Your task to perform on an android device: Go to calendar. Show me events next week Image 0: 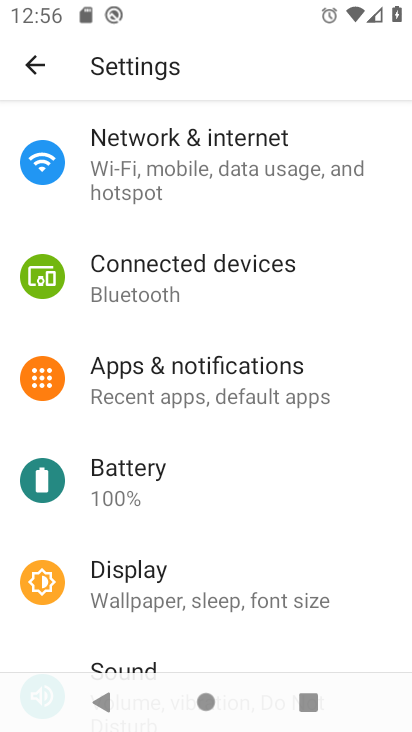
Step 0: press home button
Your task to perform on an android device: Go to calendar. Show me events next week Image 1: 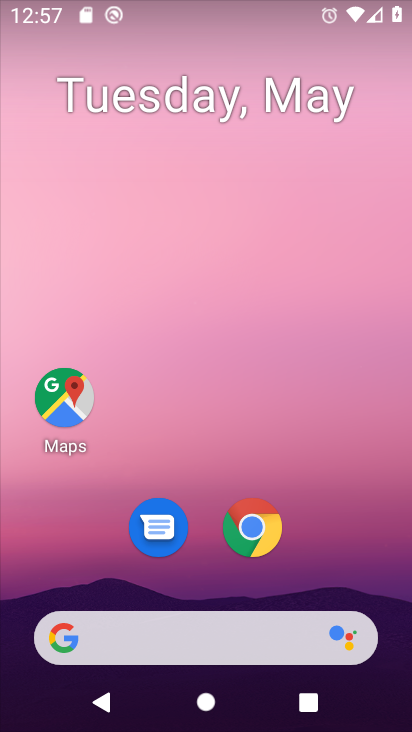
Step 1: drag from (257, 680) to (268, 245)
Your task to perform on an android device: Go to calendar. Show me events next week Image 2: 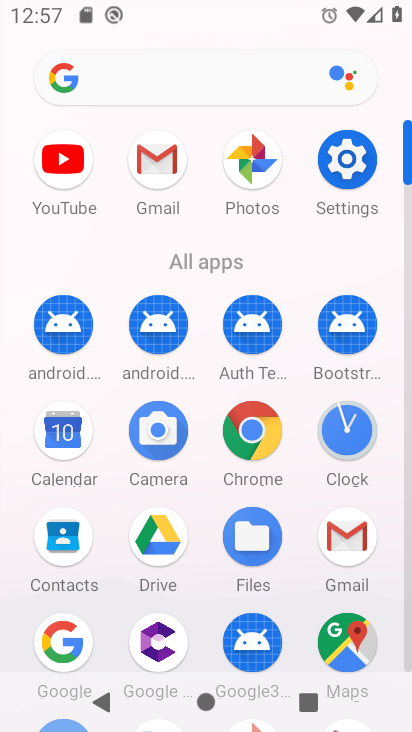
Step 2: click (56, 437)
Your task to perform on an android device: Go to calendar. Show me events next week Image 3: 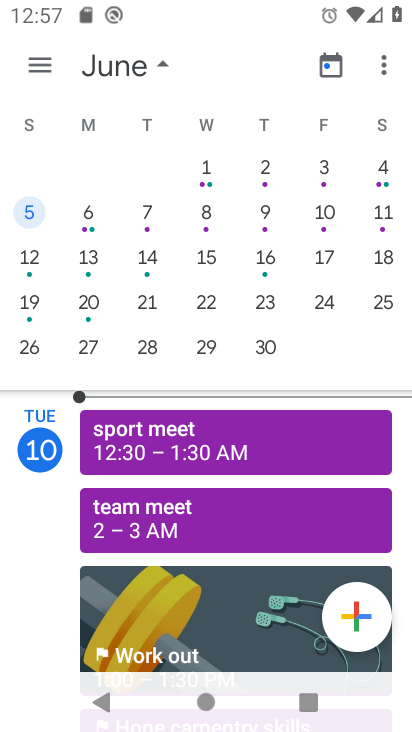
Step 3: drag from (72, 192) to (393, 210)
Your task to perform on an android device: Go to calendar. Show me events next week Image 4: 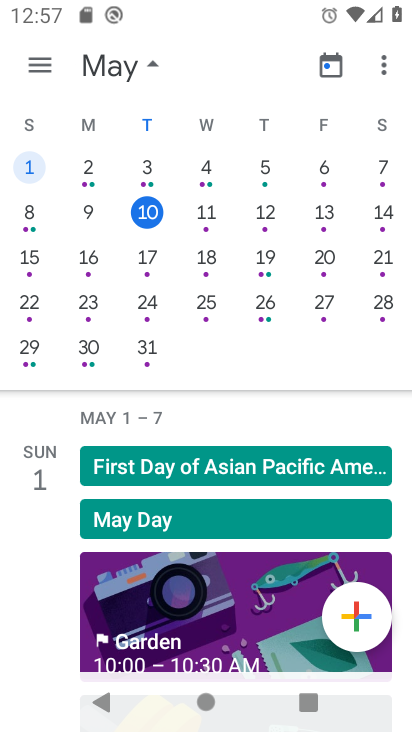
Step 4: click (40, 259)
Your task to perform on an android device: Go to calendar. Show me events next week Image 5: 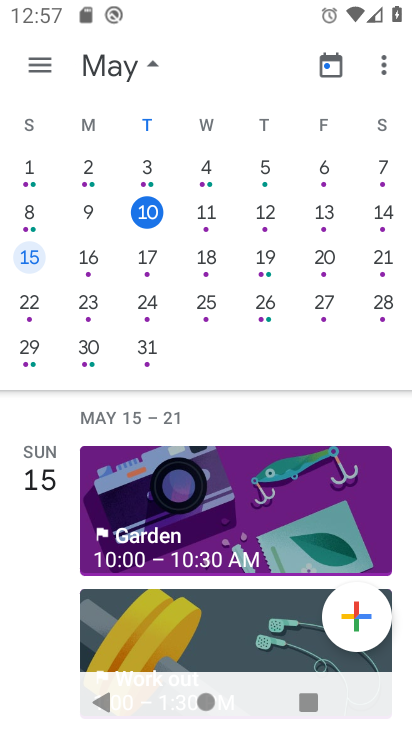
Step 5: task complete